Your task to perform on an android device: visit the assistant section in the google photos Image 0: 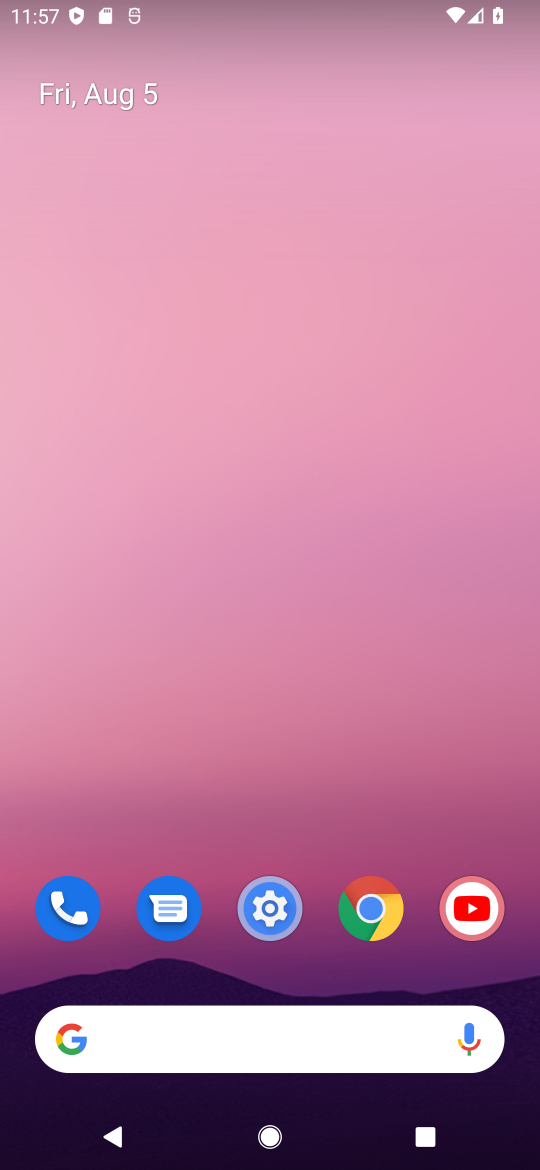
Step 0: drag from (376, 571) to (399, 10)
Your task to perform on an android device: visit the assistant section in the google photos Image 1: 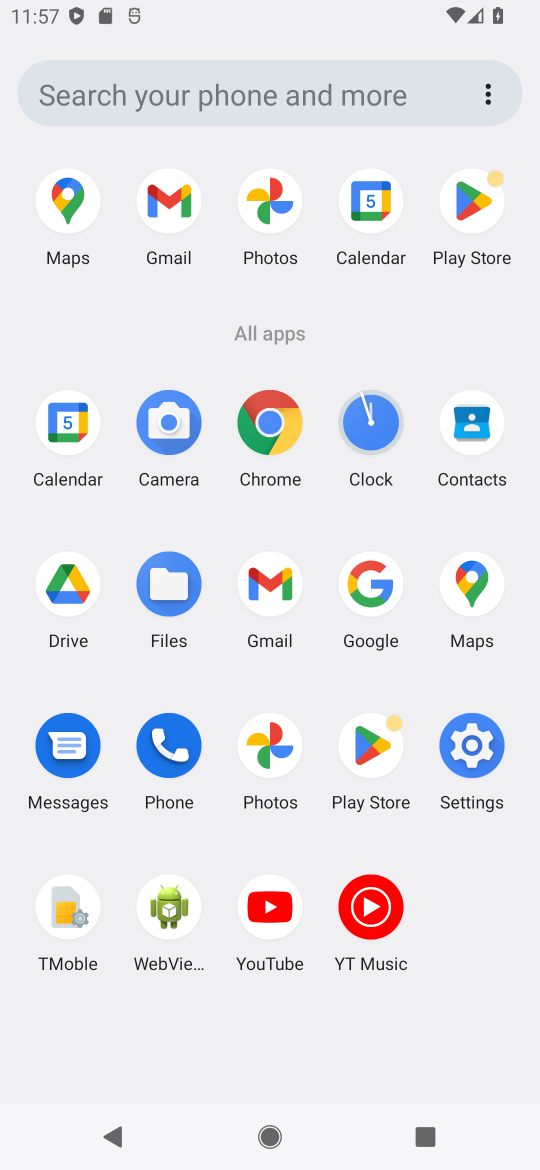
Step 1: click (261, 729)
Your task to perform on an android device: visit the assistant section in the google photos Image 2: 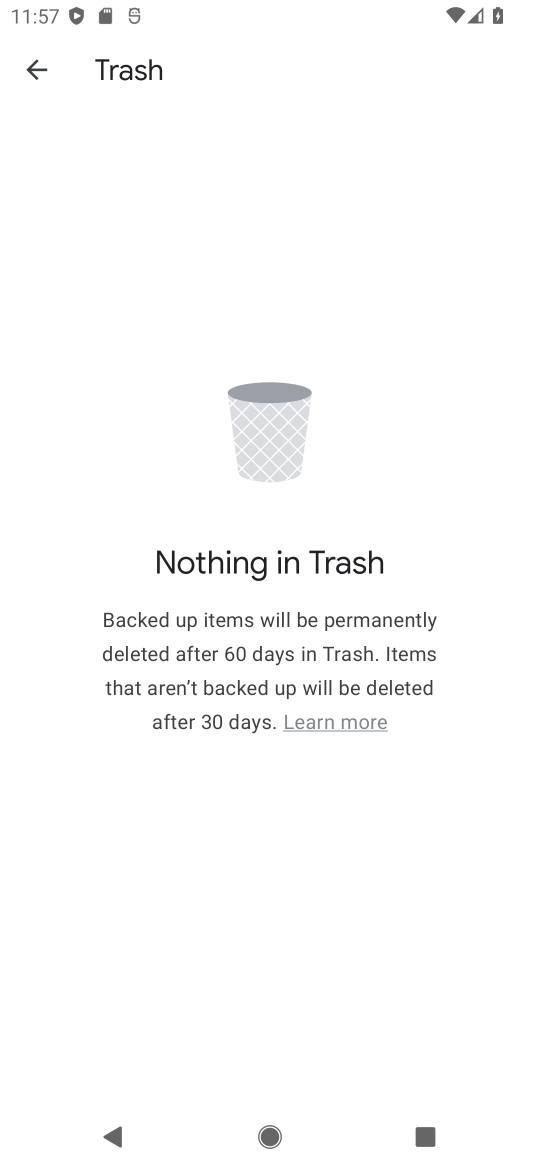
Step 2: click (38, 72)
Your task to perform on an android device: visit the assistant section in the google photos Image 3: 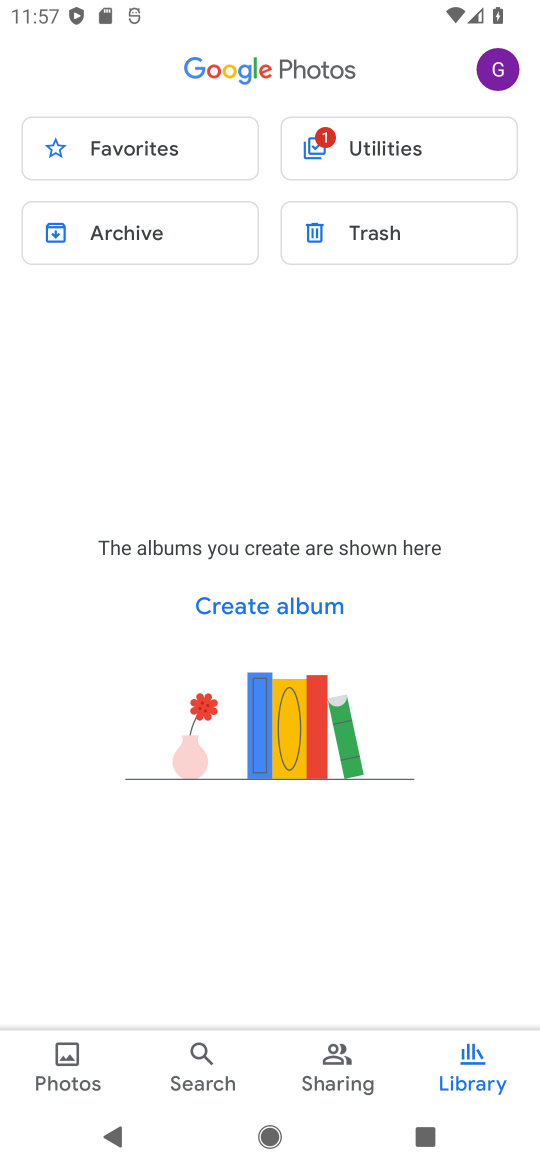
Step 3: click (54, 1087)
Your task to perform on an android device: visit the assistant section in the google photos Image 4: 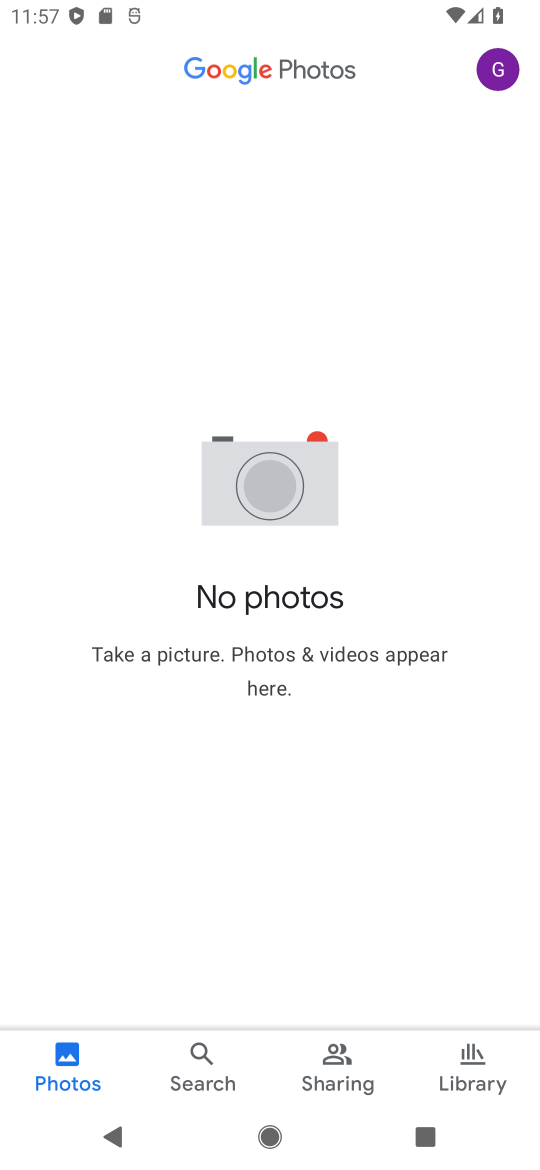
Step 4: click (481, 1048)
Your task to perform on an android device: visit the assistant section in the google photos Image 5: 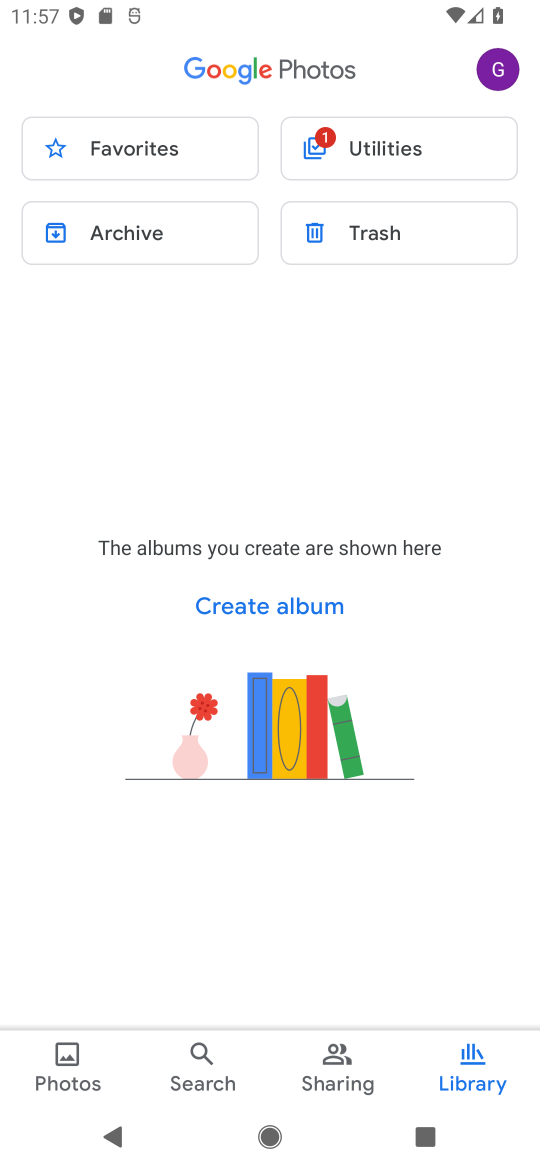
Step 5: click (356, 159)
Your task to perform on an android device: visit the assistant section in the google photos Image 6: 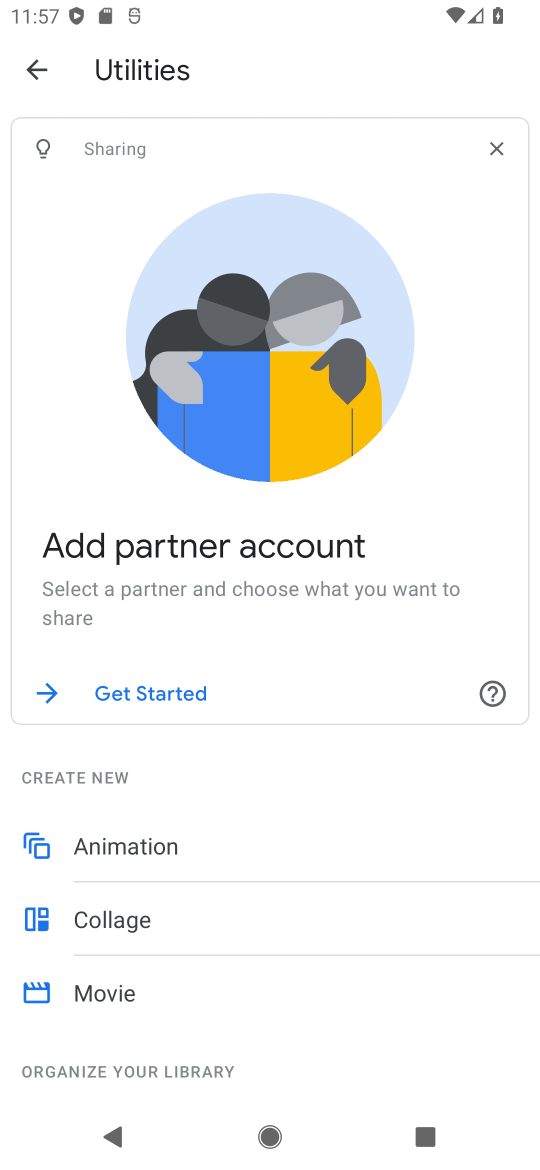
Step 6: click (30, 60)
Your task to perform on an android device: visit the assistant section in the google photos Image 7: 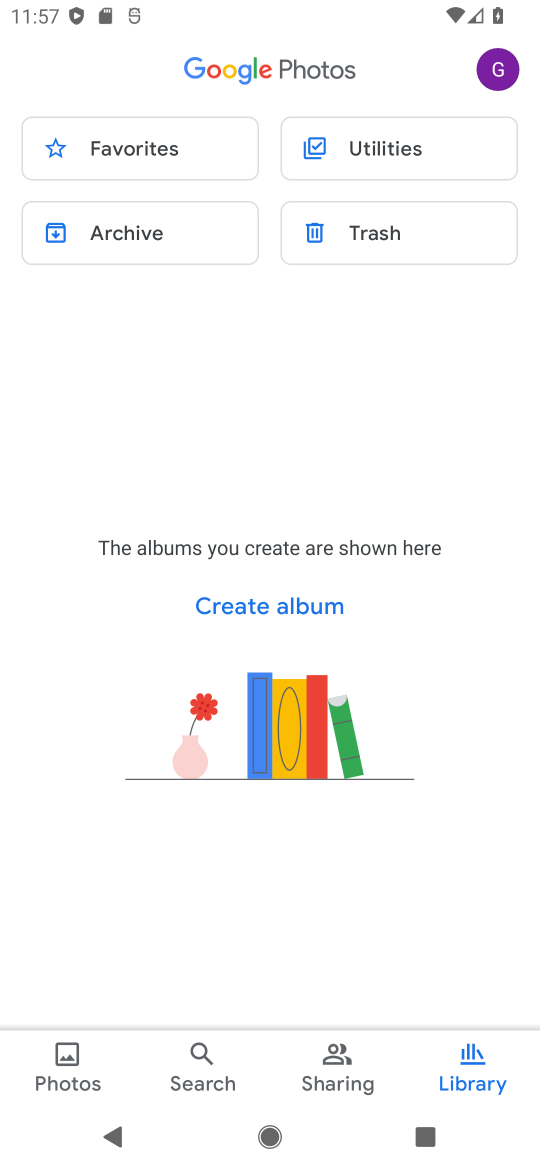
Step 7: task complete